Your task to perform on an android device: Open Amazon Image 0: 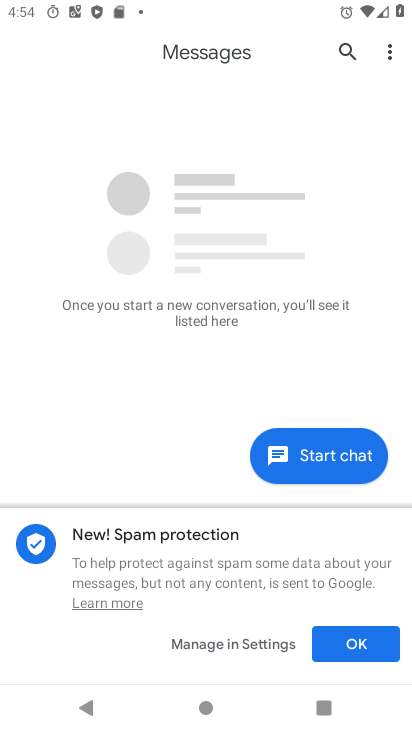
Step 0: press home button
Your task to perform on an android device: Open Amazon Image 1: 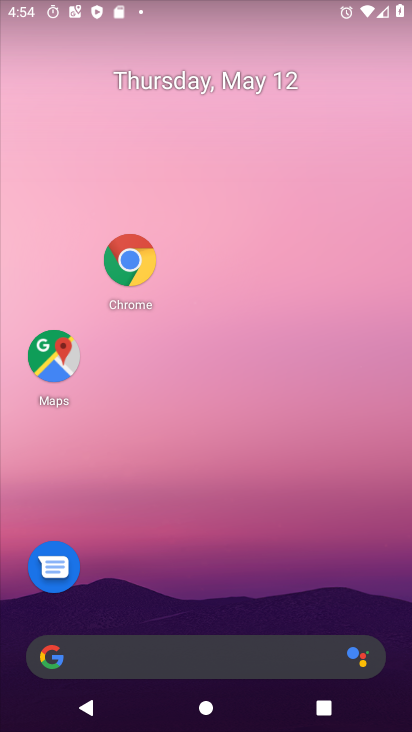
Step 1: click (132, 267)
Your task to perform on an android device: Open Amazon Image 2: 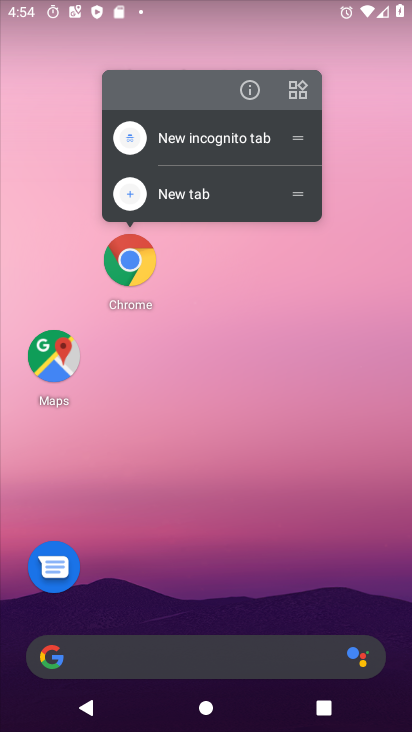
Step 2: click (129, 260)
Your task to perform on an android device: Open Amazon Image 3: 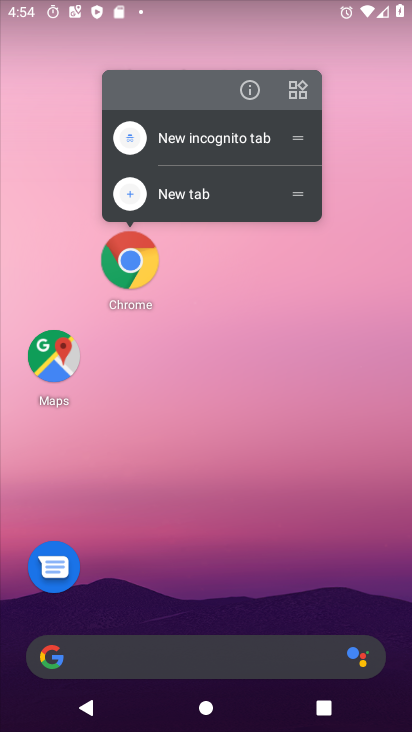
Step 3: click (135, 267)
Your task to perform on an android device: Open Amazon Image 4: 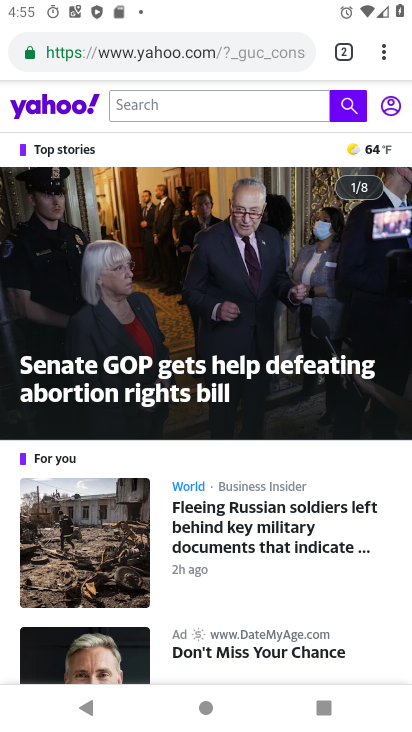
Step 4: click (298, 48)
Your task to perform on an android device: Open Amazon Image 5: 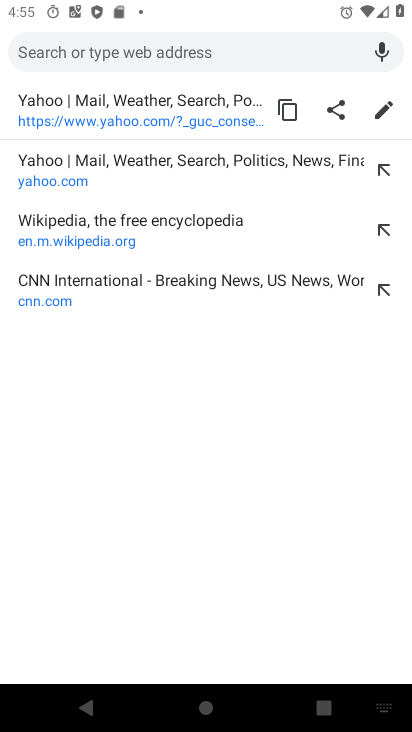
Step 5: click (261, 54)
Your task to perform on an android device: Open Amazon Image 6: 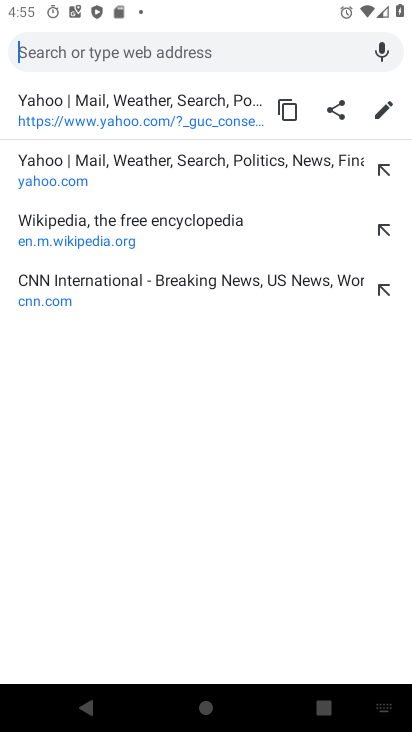
Step 6: press back button
Your task to perform on an android device: Open Amazon Image 7: 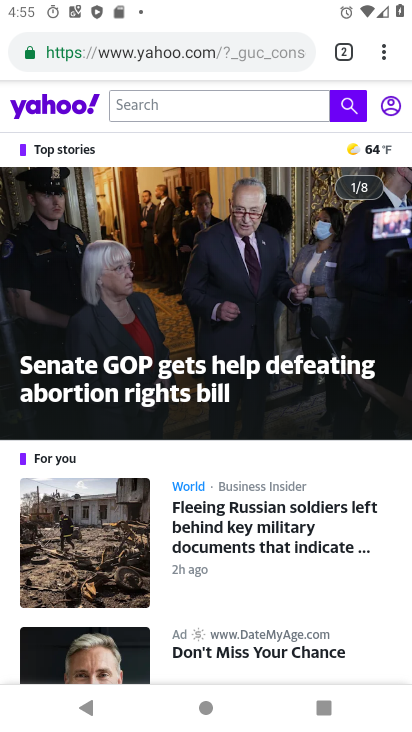
Step 7: press back button
Your task to perform on an android device: Open Amazon Image 8: 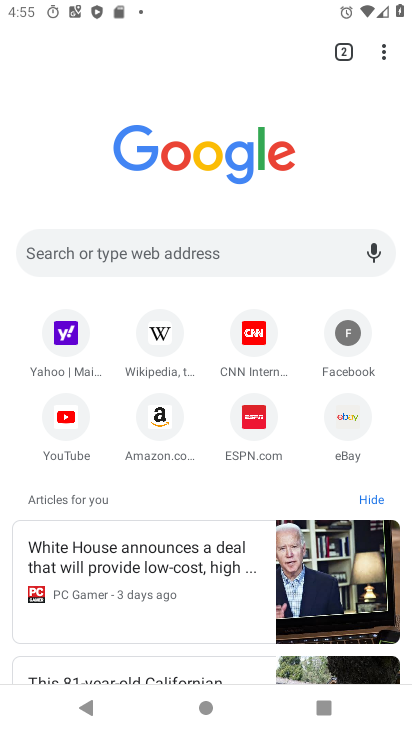
Step 8: click (167, 424)
Your task to perform on an android device: Open Amazon Image 9: 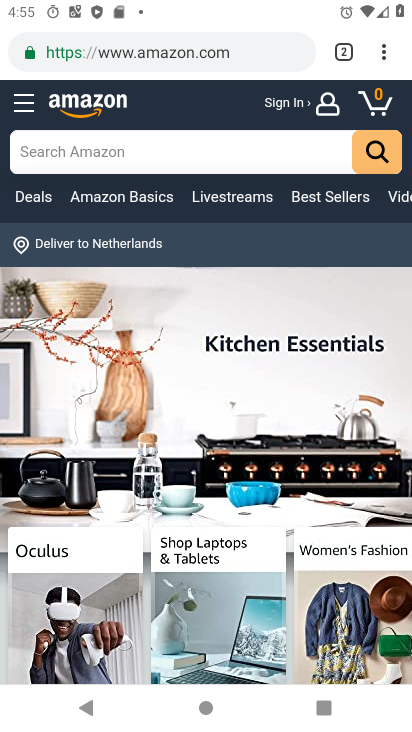
Step 9: click (185, 258)
Your task to perform on an android device: Open Amazon Image 10: 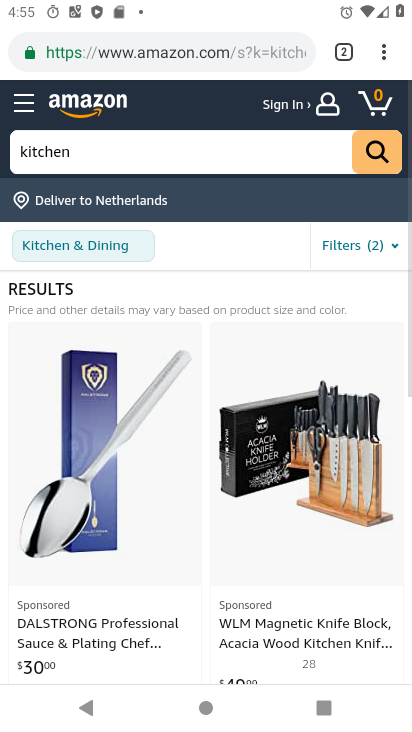
Step 10: task complete